Your task to perform on an android device: toggle show notifications on the lock screen Image 0: 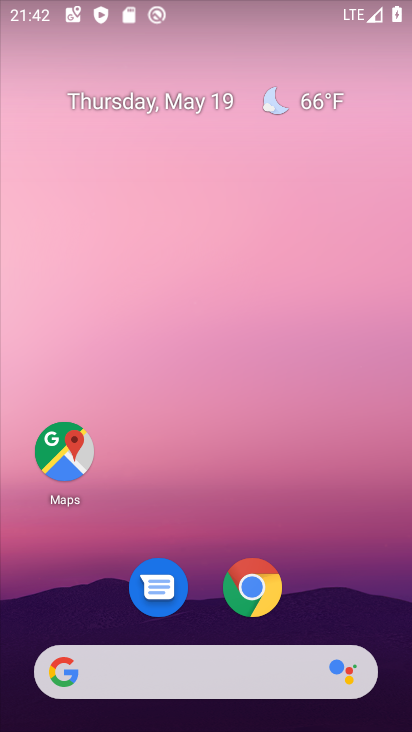
Step 0: drag from (240, 577) to (225, 214)
Your task to perform on an android device: toggle show notifications on the lock screen Image 1: 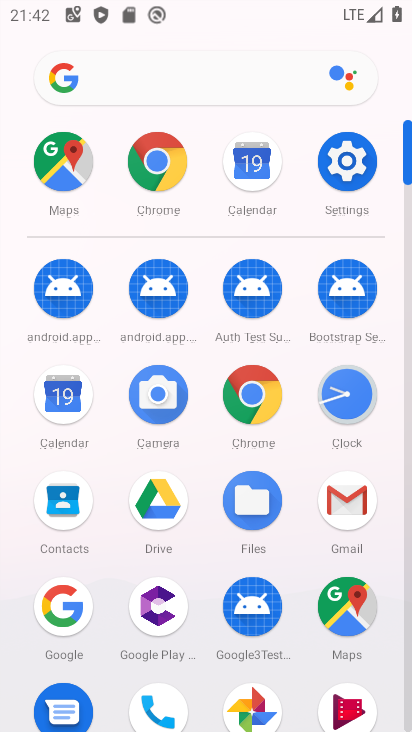
Step 1: click (362, 163)
Your task to perform on an android device: toggle show notifications on the lock screen Image 2: 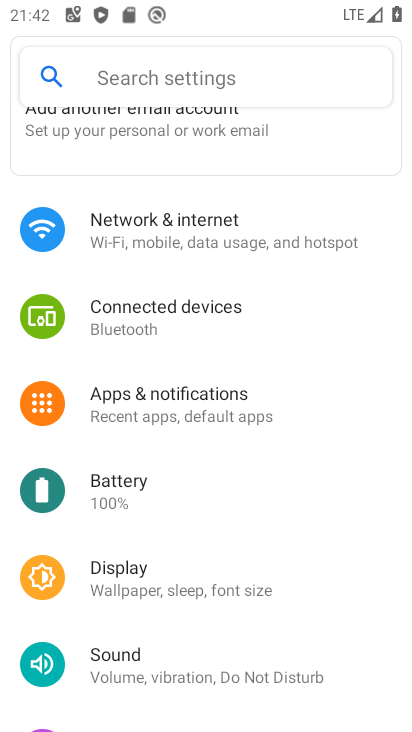
Step 2: click (148, 66)
Your task to perform on an android device: toggle show notifications on the lock screen Image 3: 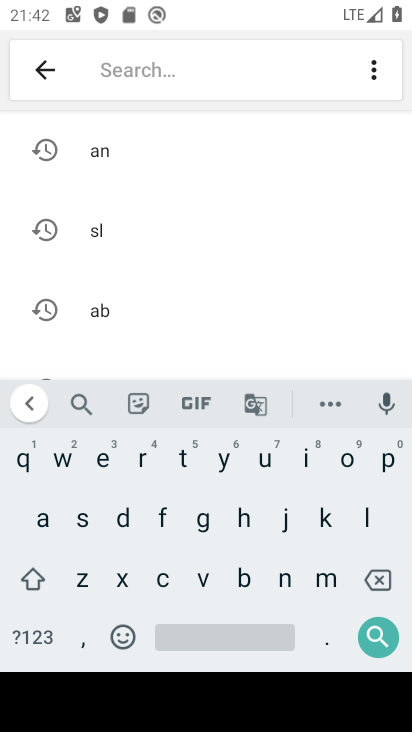
Step 3: click (281, 577)
Your task to perform on an android device: toggle show notifications on the lock screen Image 4: 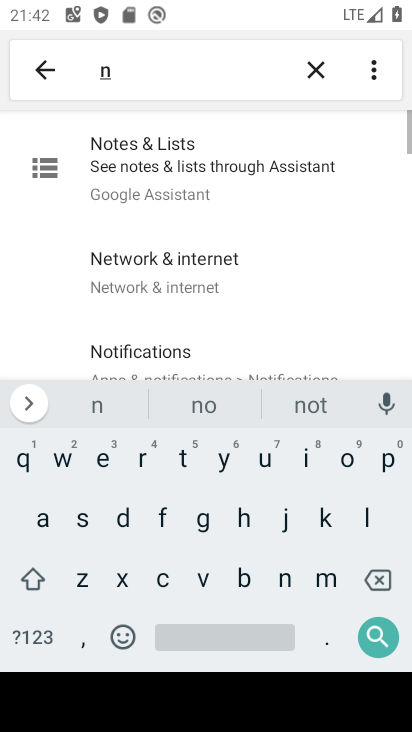
Step 4: click (343, 459)
Your task to perform on an android device: toggle show notifications on the lock screen Image 5: 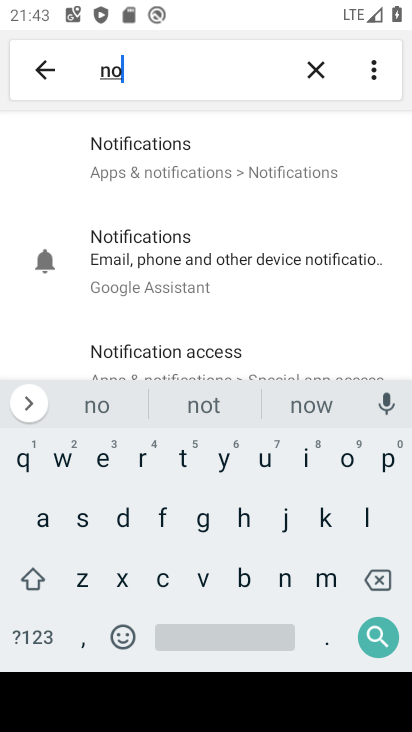
Step 5: click (137, 150)
Your task to perform on an android device: toggle show notifications on the lock screen Image 6: 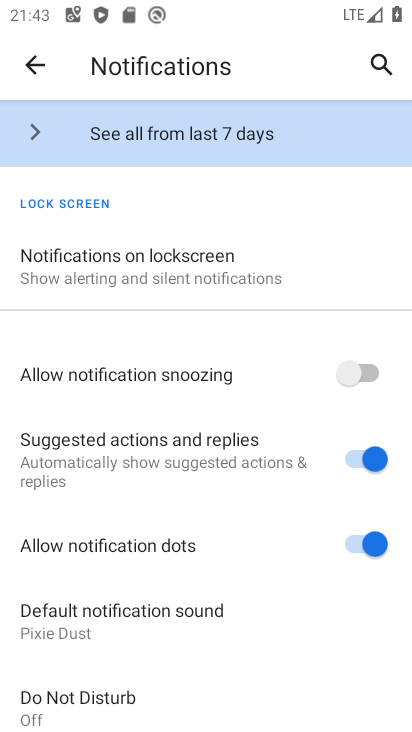
Step 6: click (116, 273)
Your task to perform on an android device: toggle show notifications on the lock screen Image 7: 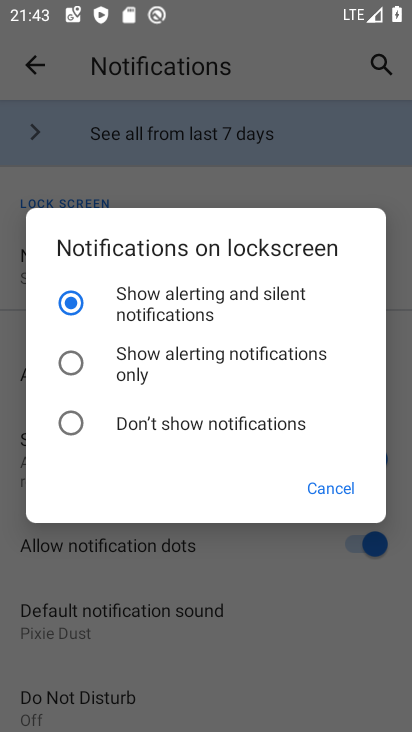
Step 7: task complete